Your task to perform on an android device: turn on improve location accuracy Image 0: 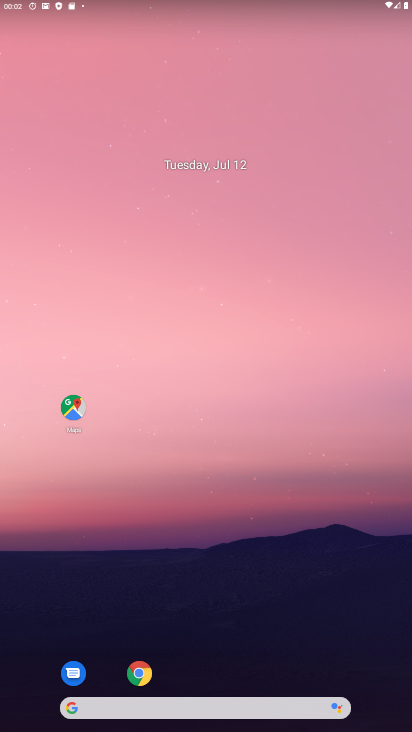
Step 0: press home button
Your task to perform on an android device: turn on improve location accuracy Image 1: 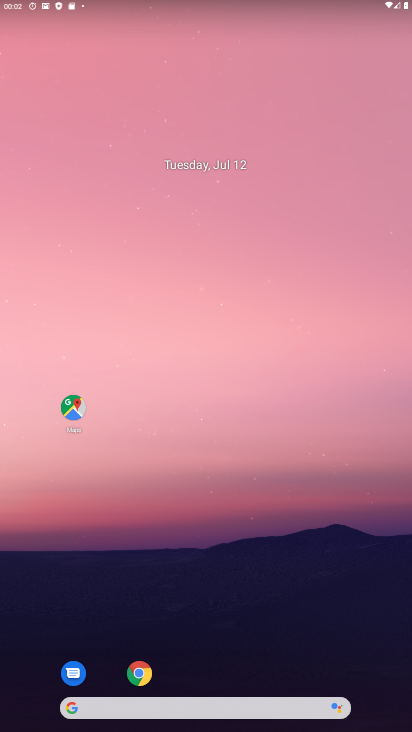
Step 1: drag from (300, 559) to (289, 138)
Your task to perform on an android device: turn on improve location accuracy Image 2: 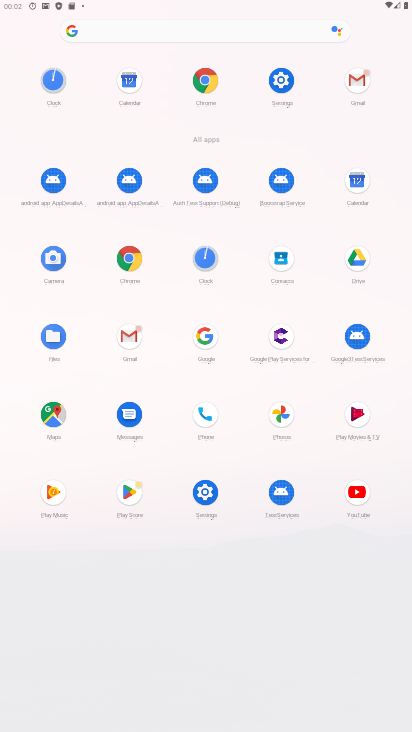
Step 2: click (279, 80)
Your task to perform on an android device: turn on improve location accuracy Image 3: 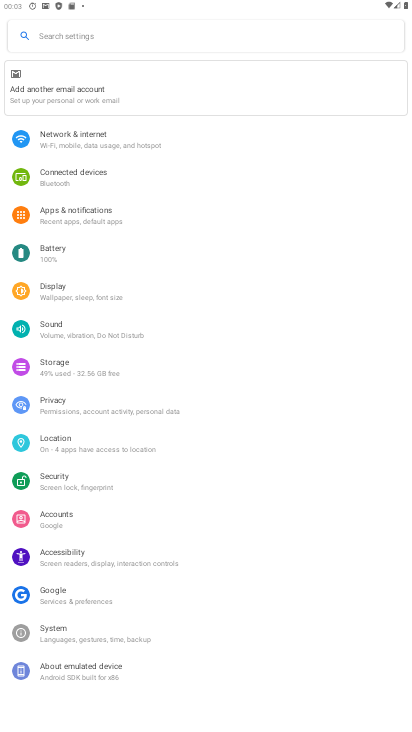
Step 3: click (63, 440)
Your task to perform on an android device: turn on improve location accuracy Image 4: 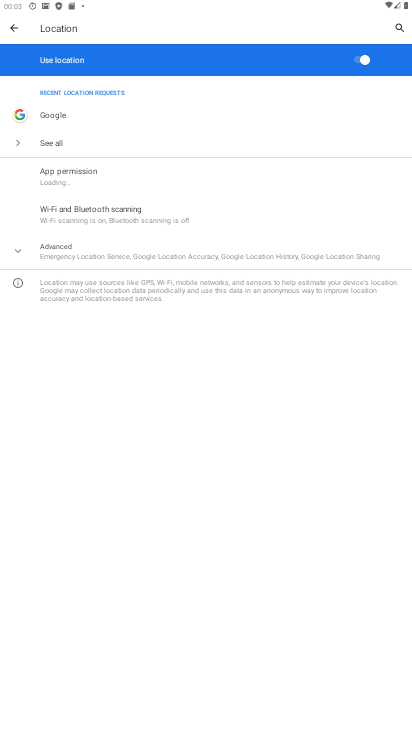
Step 4: click (17, 249)
Your task to perform on an android device: turn on improve location accuracy Image 5: 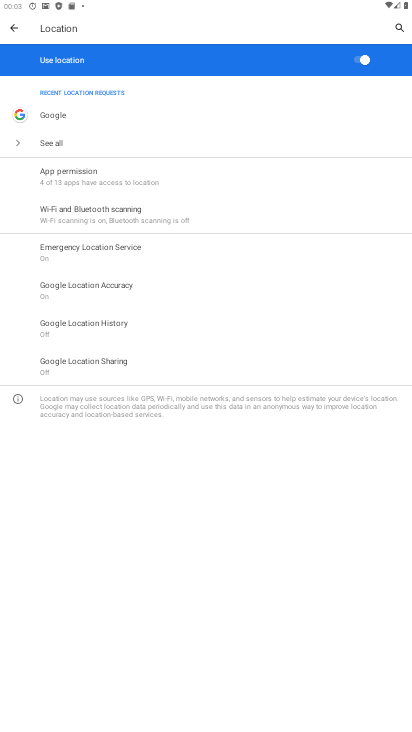
Step 5: click (115, 284)
Your task to perform on an android device: turn on improve location accuracy Image 6: 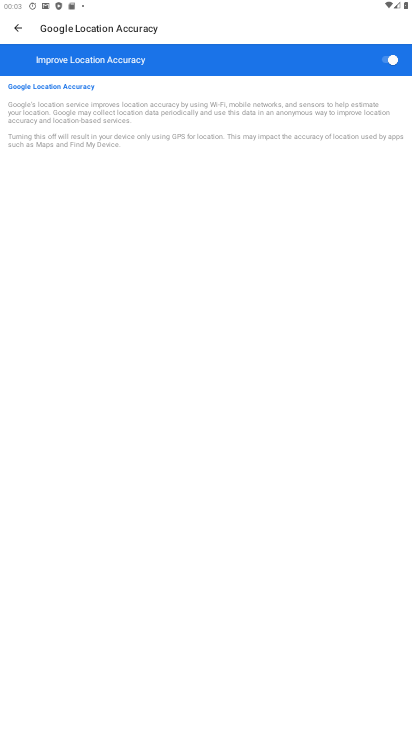
Step 6: task complete